Your task to perform on an android device: Show the shopping cart on target.com. Add "usb-b" to the cart on target.com, then select checkout. Image 0: 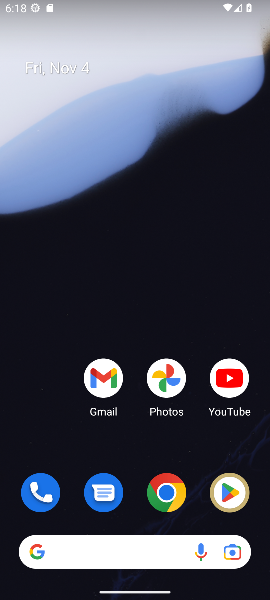
Step 0: drag from (126, 443) to (226, 92)
Your task to perform on an android device: Show the shopping cart on target.com. Add "usb-b" to the cart on target.com, then select checkout. Image 1: 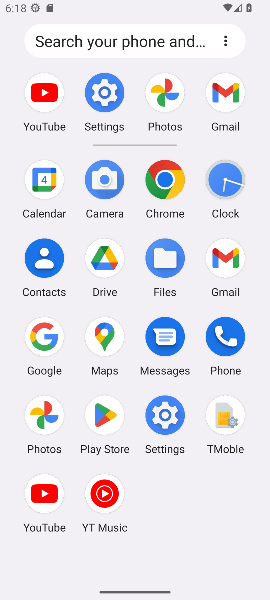
Step 1: click (172, 182)
Your task to perform on an android device: Show the shopping cart on target.com. Add "usb-b" to the cart on target.com, then select checkout. Image 2: 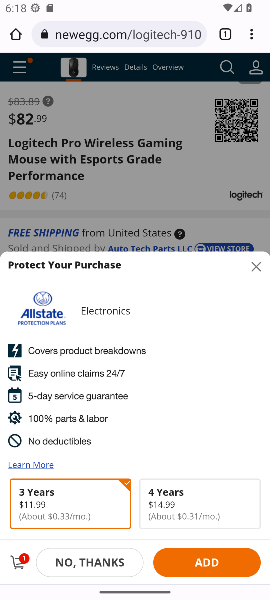
Step 2: click (148, 27)
Your task to perform on an android device: Show the shopping cart on target.com. Add "usb-b" to the cart on target.com, then select checkout. Image 3: 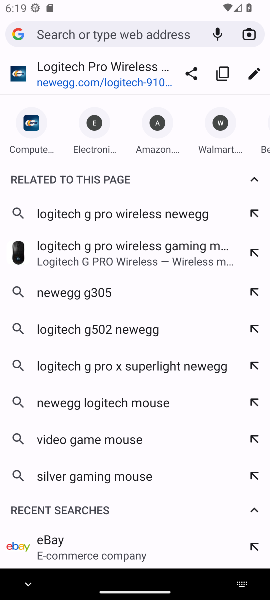
Step 3: type "target.com"
Your task to perform on an android device: Show the shopping cart on target.com. Add "usb-b" to the cart on target.com, then select checkout. Image 4: 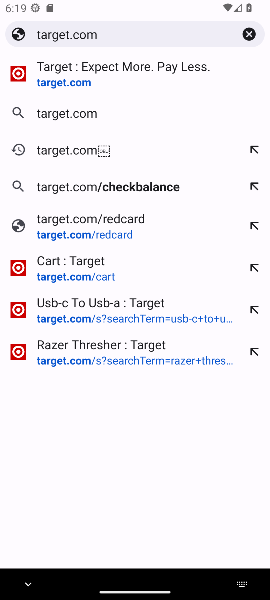
Step 4: press enter
Your task to perform on an android device: Show the shopping cart on target.com. Add "usb-b" to the cart on target.com, then select checkout. Image 5: 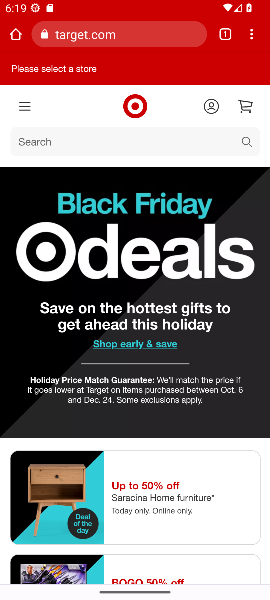
Step 5: click (249, 106)
Your task to perform on an android device: Show the shopping cart on target.com. Add "usb-b" to the cart on target.com, then select checkout. Image 6: 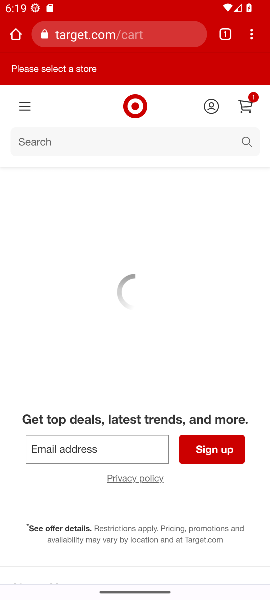
Step 6: click (156, 149)
Your task to perform on an android device: Show the shopping cart on target.com. Add "usb-b" to the cart on target.com, then select checkout. Image 7: 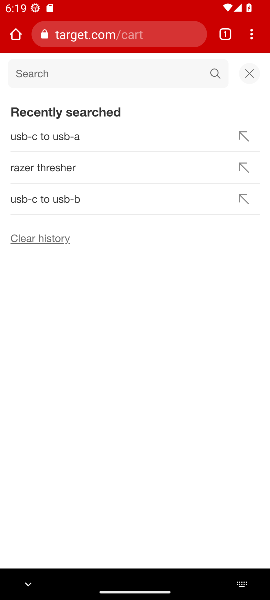
Step 7: type "usb-b"
Your task to perform on an android device: Show the shopping cart on target.com. Add "usb-b" to the cart on target.com, then select checkout. Image 8: 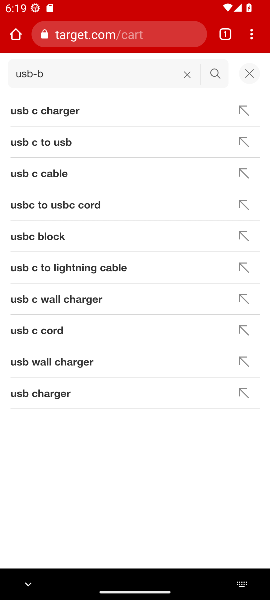
Step 8: press enter
Your task to perform on an android device: Show the shopping cart on target.com. Add "usb-b" to the cart on target.com, then select checkout. Image 9: 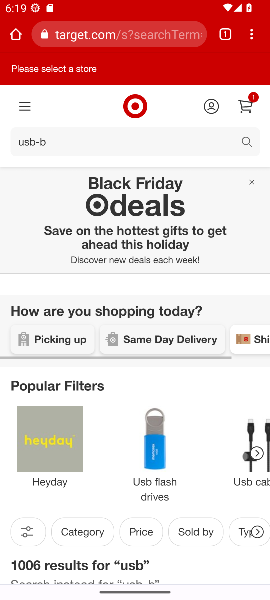
Step 9: task complete